Your task to perform on an android device: toggle translation in the chrome app Image 0: 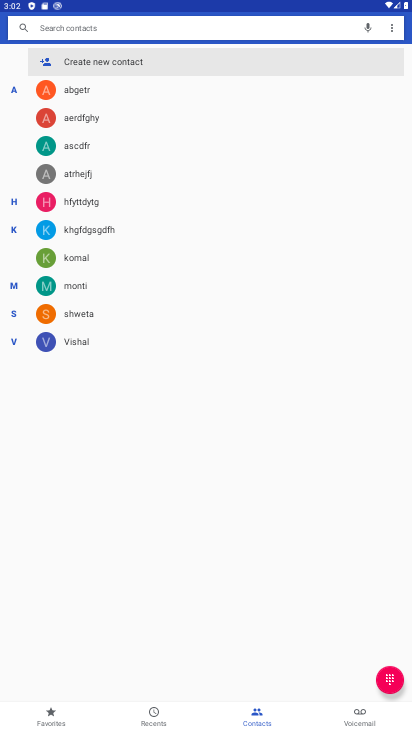
Step 0: press home button
Your task to perform on an android device: toggle translation in the chrome app Image 1: 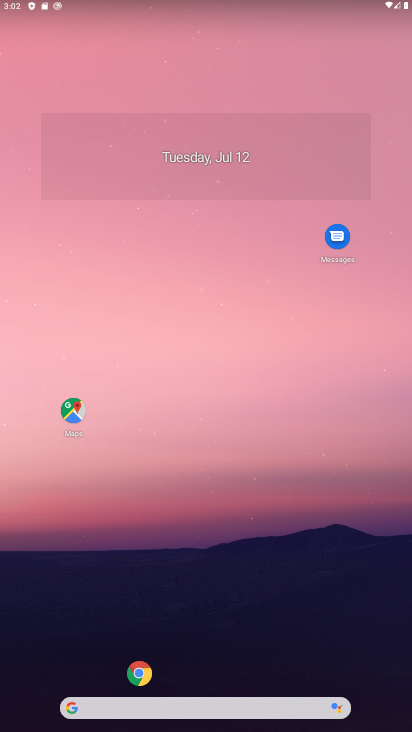
Step 1: click (138, 666)
Your task to perform on an android device: toggle translation in the chrome app Image 2: 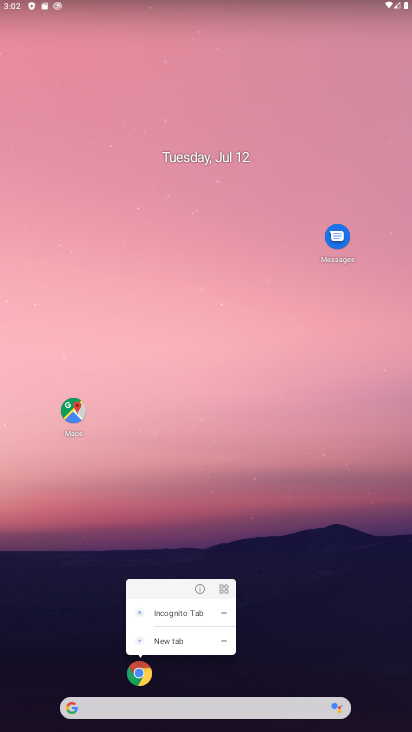
Step 2: click (129, 657)
Your task to perform on an android device: toggle translation in the chrome app Image 3: 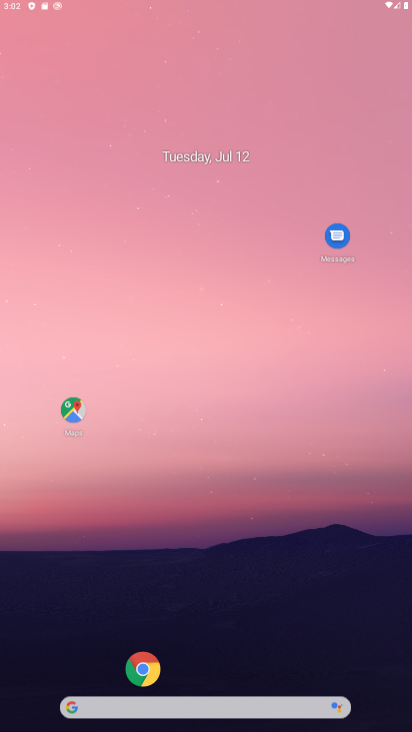
Step 3: click (141, 678)
Your task to perform on an android device: toggle translation in the chrome app Image 4: 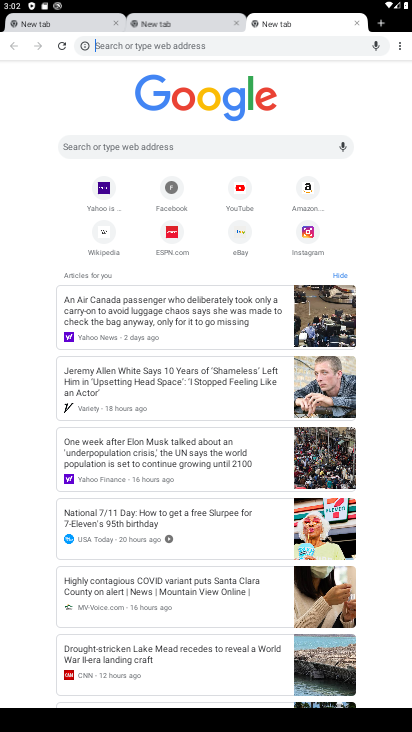
Step 4: click (401, 43)
Your task to perform on an android device: toggle translation in the chrome app Image 5: 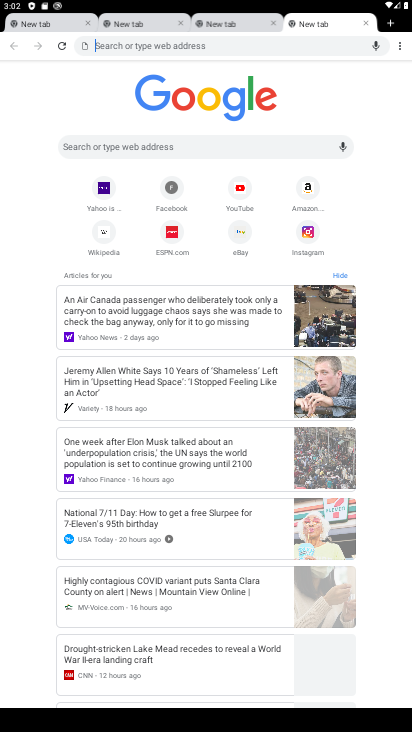
Step 5: click (396, 46)
Your task to perform on an android device: toggle translation in the chrome app Image 6: 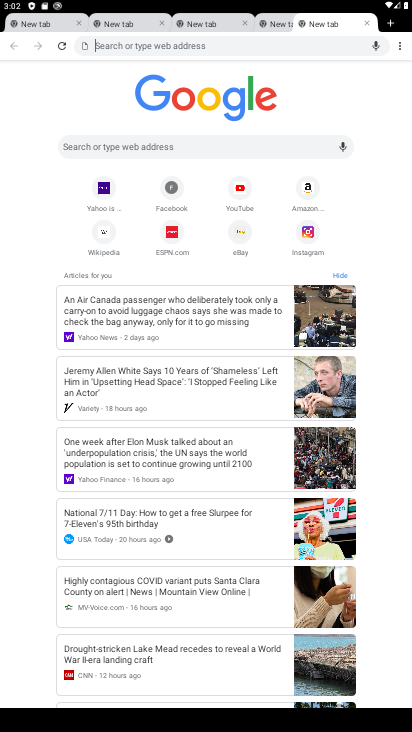
Step 6: task complete